Your task to perform on an android device: Search for Mexican restaurants on Maps Image 0: 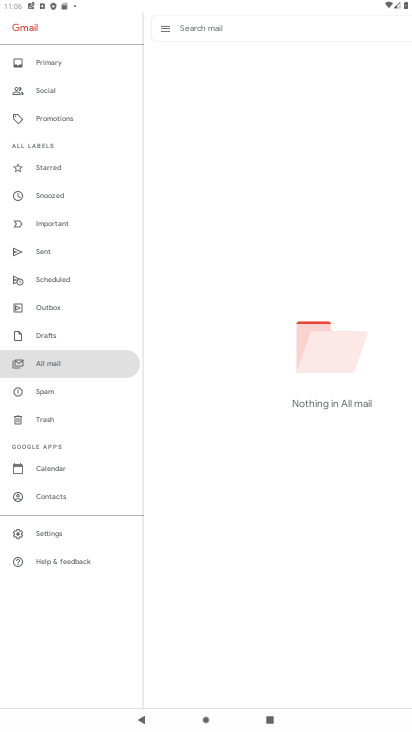
Step 0: press home button
Your task to perform on an android device: Search for Mexican restaurants on Maps Image 1: 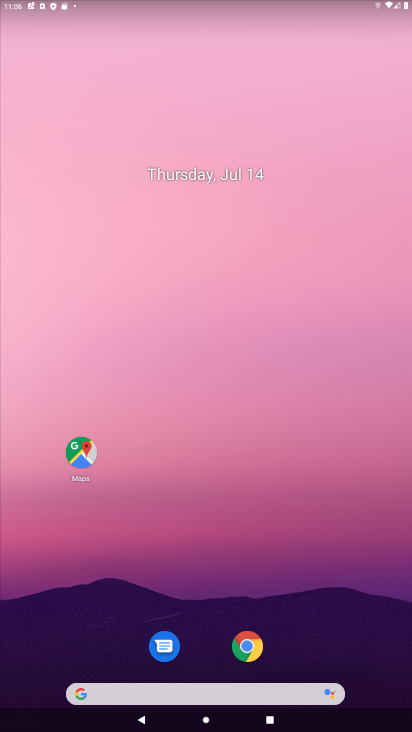
Step 1: click (73, 433)
Your task to perform on an android device: Search for Mexican restaurants on Maps Image 2: 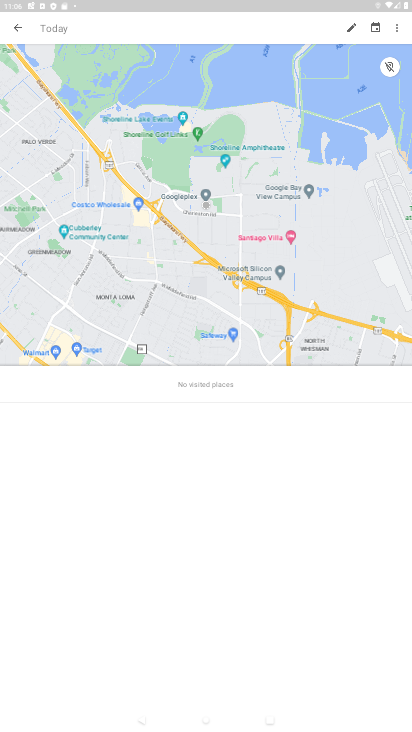
Step 2: click (19, 30)
Your task to perform on an android device: Search for Mexican restaurants on Maps Image 3: 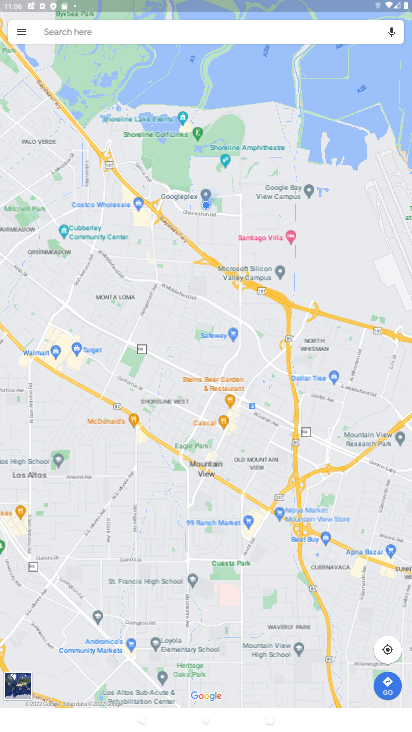
Step 3: click (90, 29)
Your task to perform on an android device: Search for Mexican restaurants on Maps Image 4: 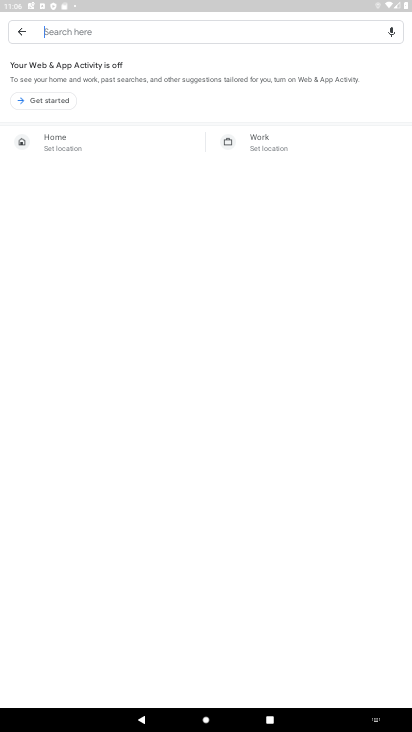
Step 4: type "Mexican restaurants"
Your task to perform on an android device: Search for Mexican restaurants on Maps Image 5: 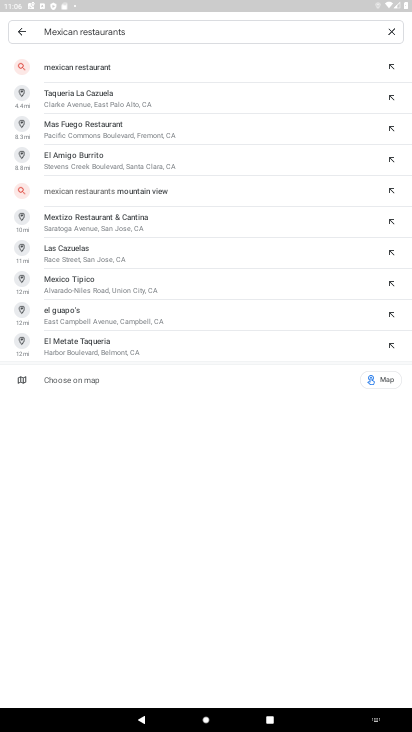
Step 5: click (108, 72)
Your task to perform on an android device: Search for Mexican restaurants on Maps Image 6: 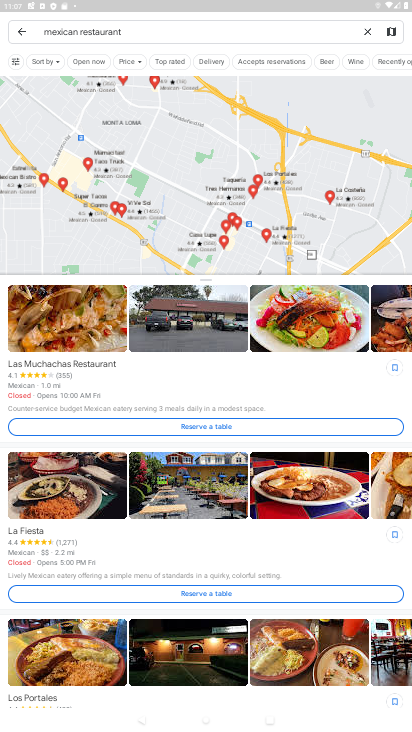
Step 6: task complete